Your task to perform on an android device: Show me popular videos on Youtube Image 0: 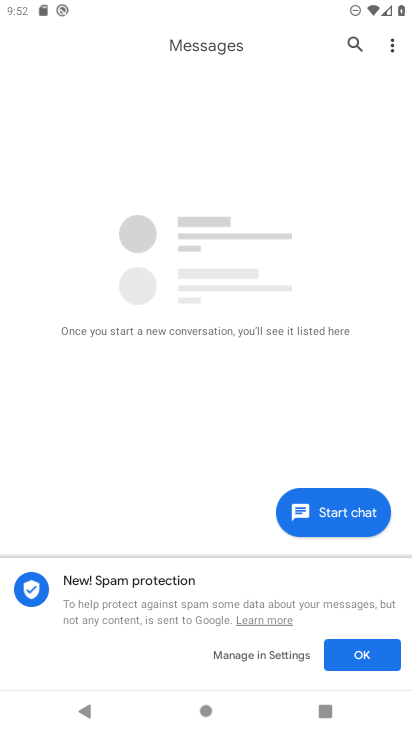
Step 0: press home button
Your task to perform on an android device: Show me popular videos on Youtube Image 1: 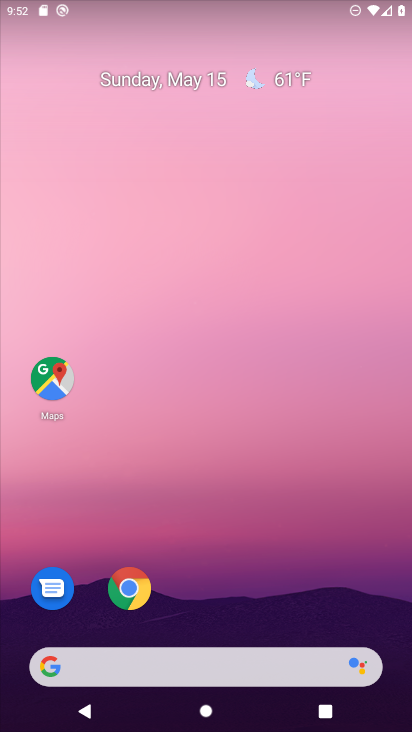
Step 1: drag from (234, 611) to (309, 325)
Your task to perform on an android device: Show me popular videos on Youtube Image 2: 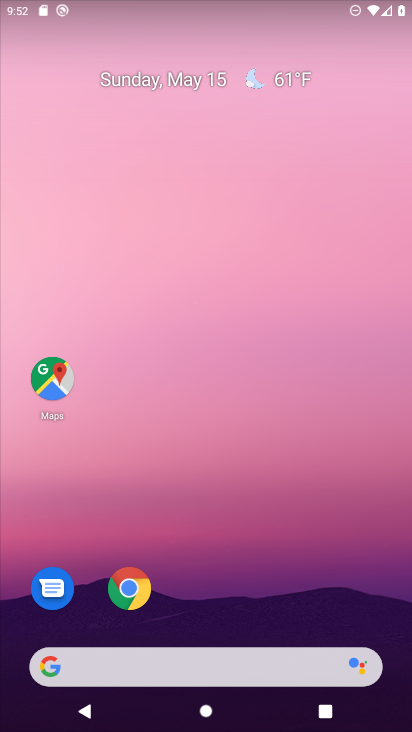
Step 2: drag from (202, 619) to (352, 9)
Your task to perform on an android device: Show me popular videos on Youtube Image 3: 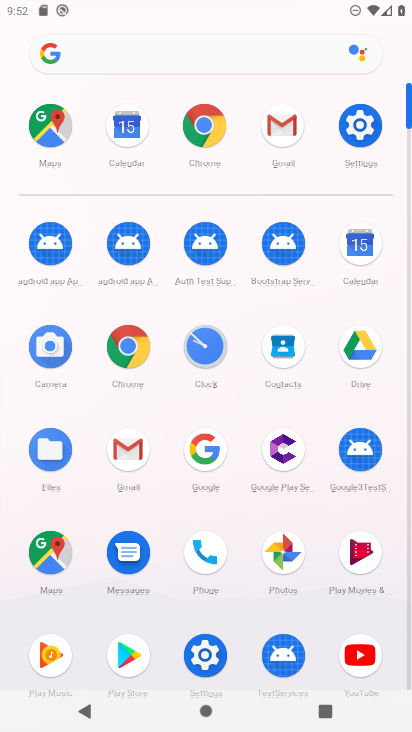
Step 3: click (350, 641)
Your task to perform on an android device: Show me popular videos on Youtube Image 4: 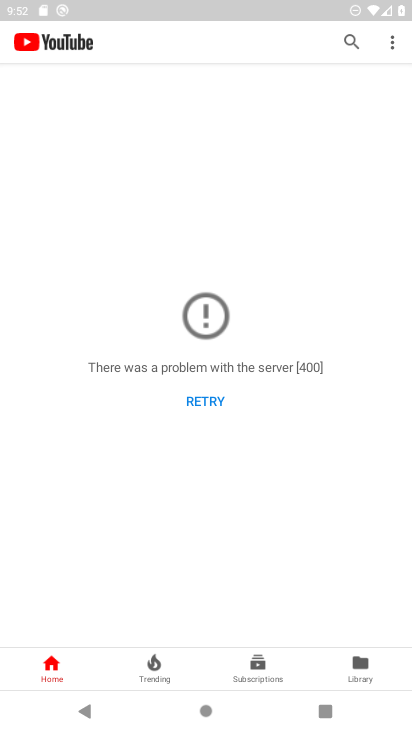
Step 4: click (205, 399)
Your task to perform on an android device: Show me popular videos on Youtube Image 5: 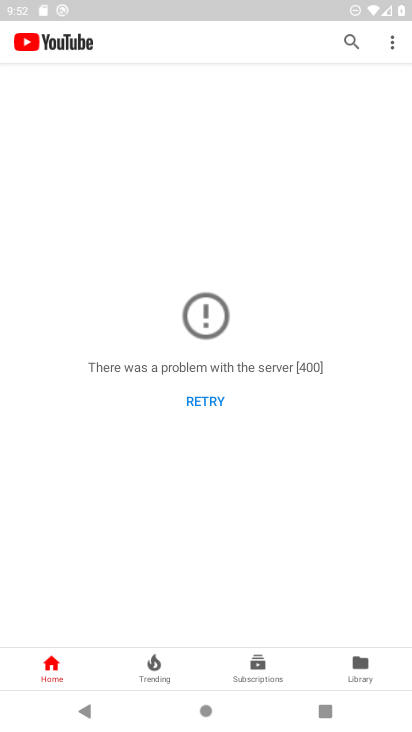
Step 5: click (191, 414)
Your task to perform on an android device: Show me popular videos on Youtube Image 6: 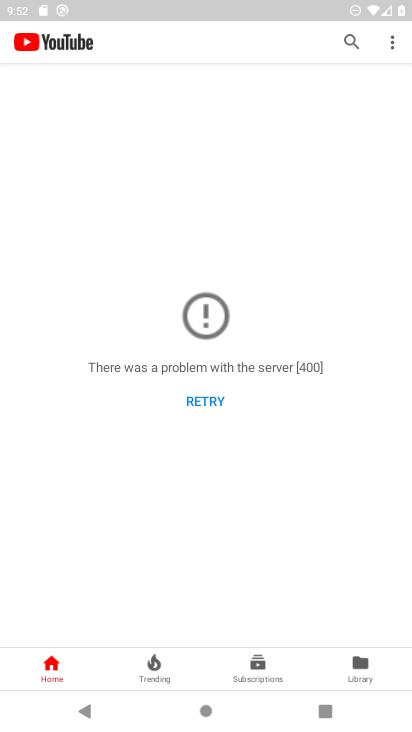
Step 6: click (191, 414)
Your task to perform on an android device: Show me popular videos on Youtube Image 7: 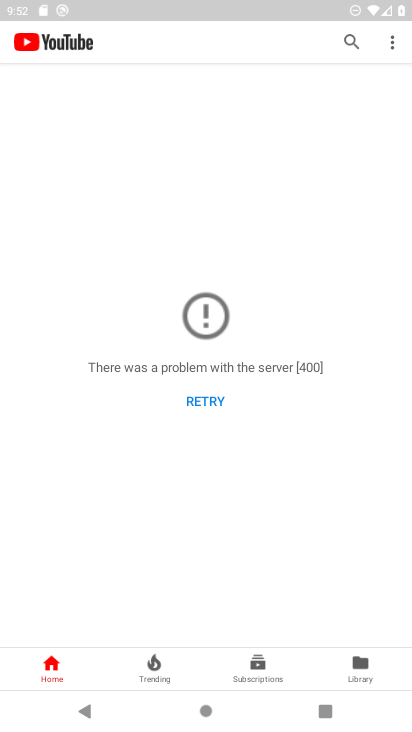
Step 7: task complete